Your task to perform on an android device: Open sound settings Image 0: 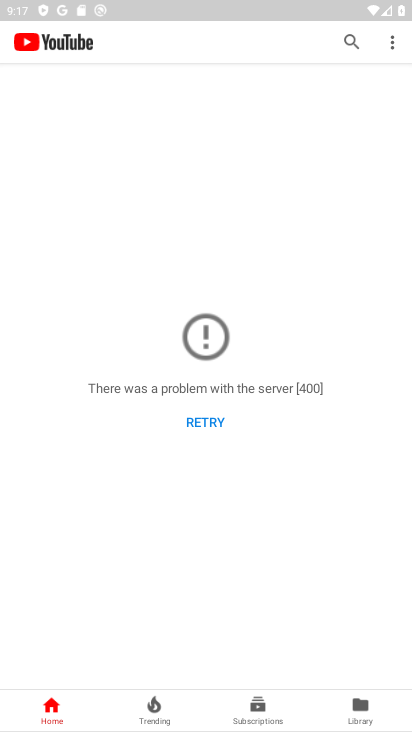
Step 0: press home button
Your task to perform on an android device: Open sound settings Image 1: 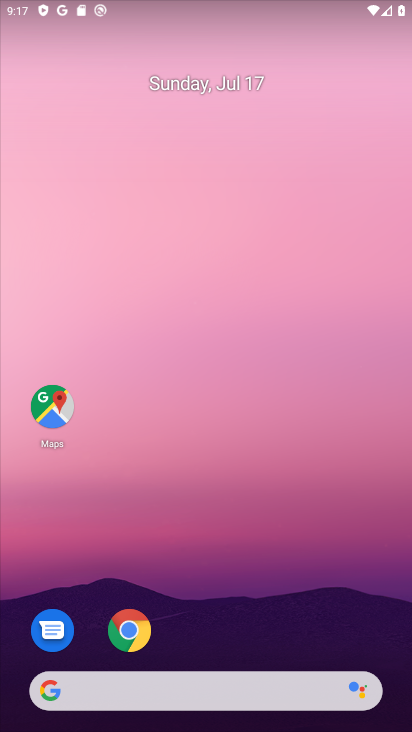
Step 1: drag from (206, 639) to (161, 31)
Your task to perform on an android device: Open sound settings Image 2: 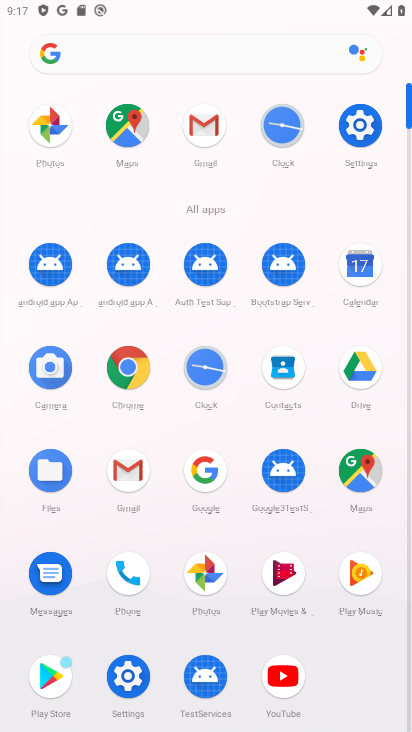
Step 2: click (358, 121)
Your task to perform on an android device: Open sound settings Image 3: 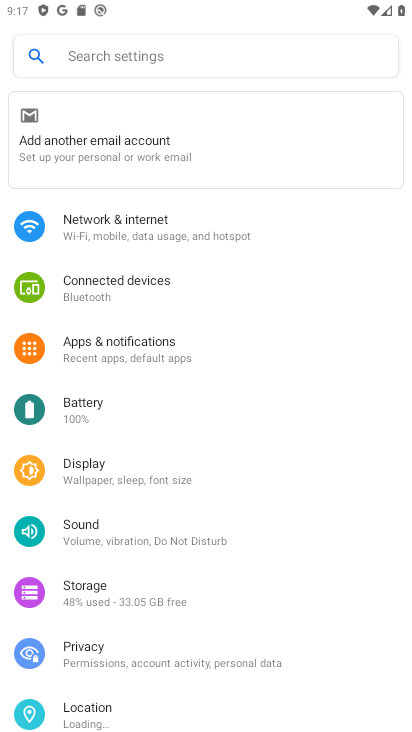
Step 3: click (115, 525)
Your task to perform on an android device: Open sound settings Image 4: 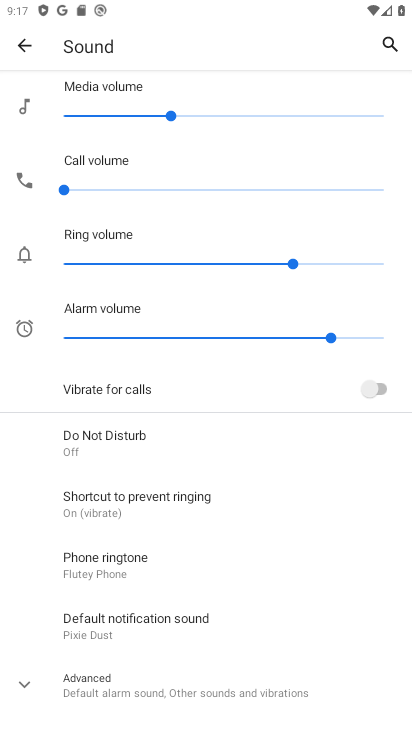
Step 4: click (80, 677)
Your task to perform on an android device: Open sound settings Image 5: 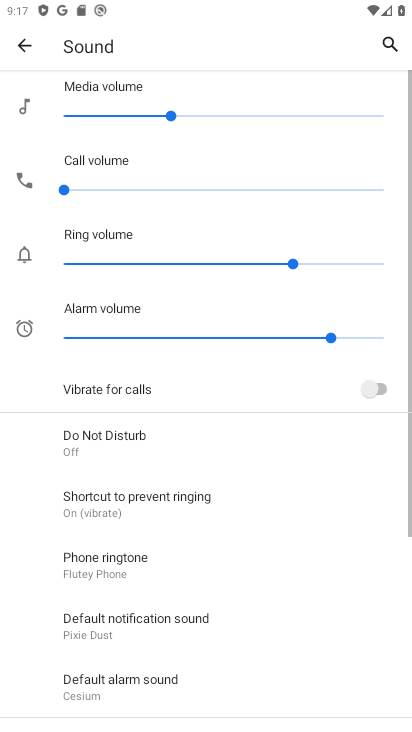
Step 5: task complete